Your task to perform on an android device: Open Google Chrome and open the bookmarks view Image 0: 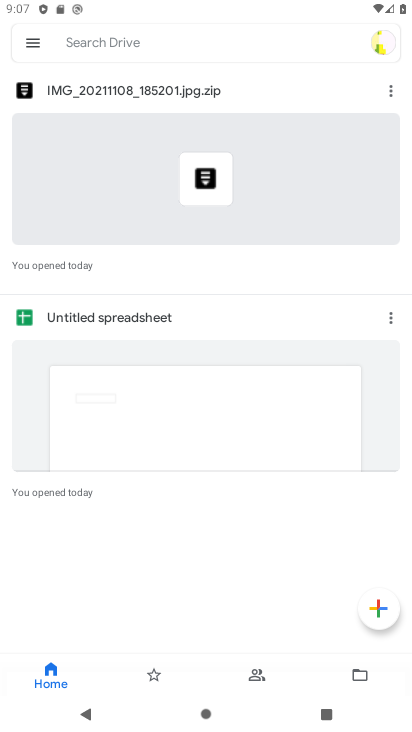
Step 0: press home button
Your task to perform on an android device: Open Google Chrome and open the bookmarks view Image 1: 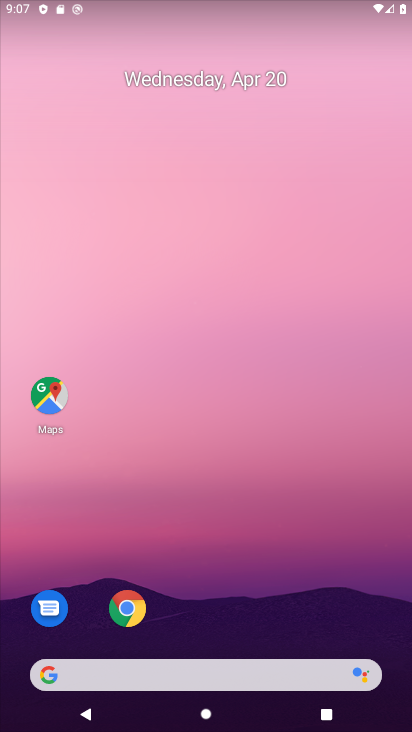
Step 1: drag from (224, 627) to (236, 19)
Your task to perform on an android device: Open Google Chrome and open the bookmarks view Image 2: 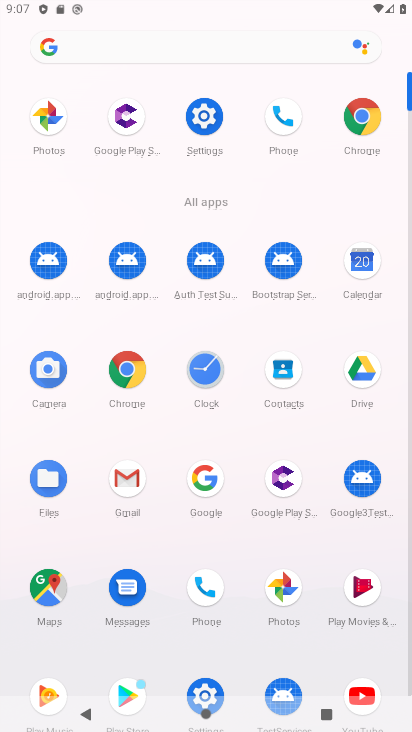
Step 2: click (135, 371)
Your task to perform on an android device: Open Google Chrome and open the bookmarks view Image 3: 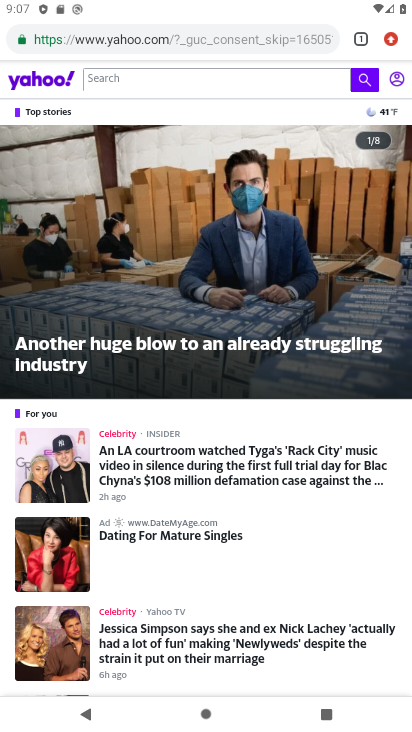
Step 3: click (385, 39)
Your task to perform on an android device: Open Google Chrome and open the bookmarks view Image 4: 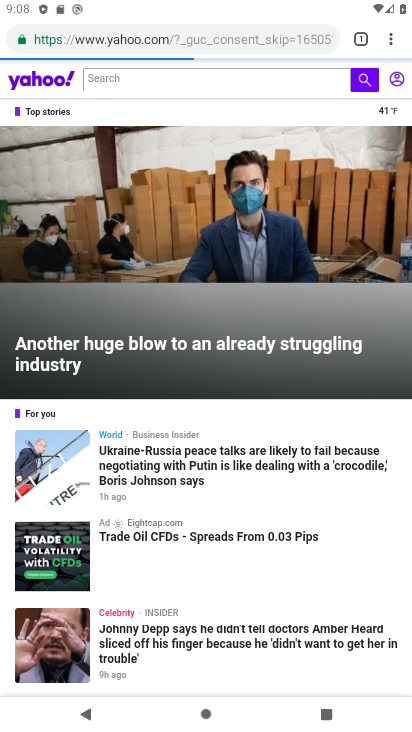
Step 4: click (389, 42)
Your task to perform on an android device: Open Google Chrome and open the bookmarks view Image 5: 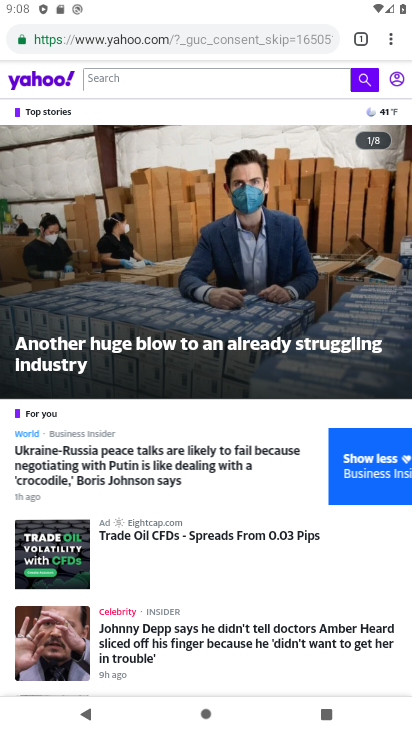
Step 5: click (395, 42)
Your task to perform on an android device: Open Google Chrome and open the bookmarks view Image 6: 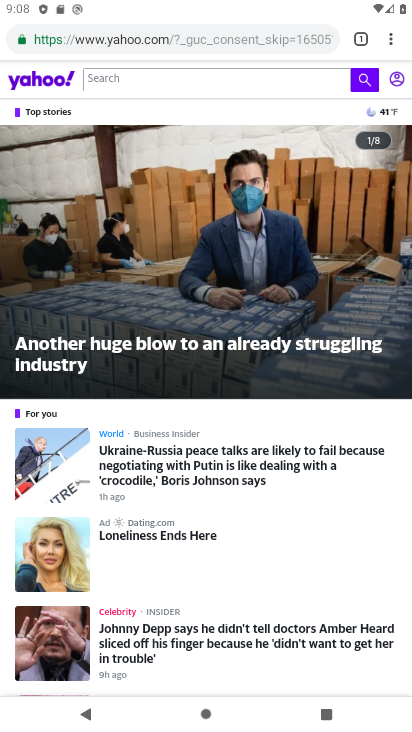
Step 6: click (391, 42)
Your task to perform on an android device: Open Google Chrome and open the bookmarks view Image 7: 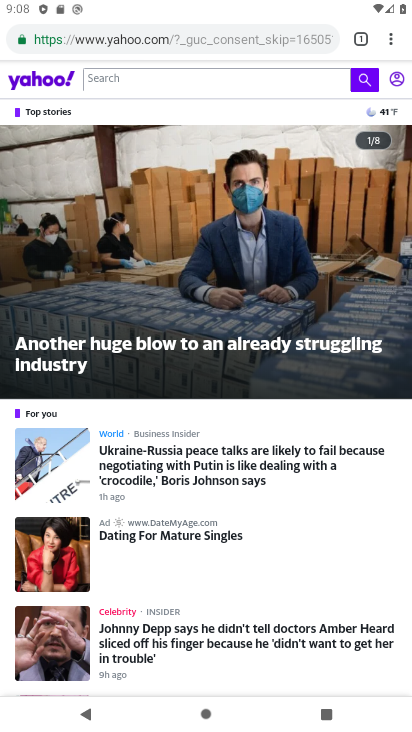
Step 7: click (388, 43)
Your task to perform on an android device: Open Google Chrome and open the bookmarks view Image 8: 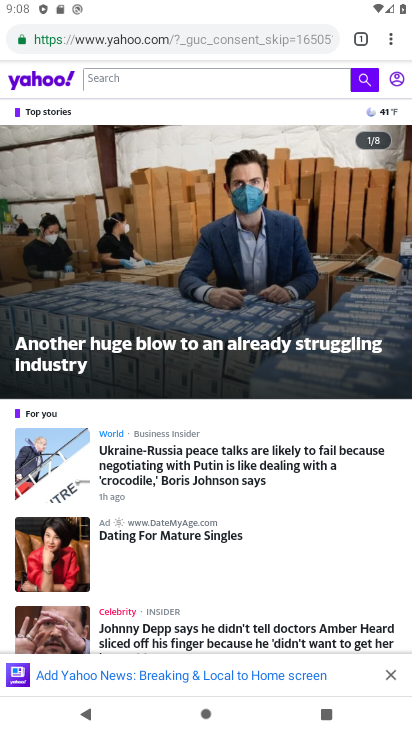
Step 8: click (383, 56)
Your task to perform on an android device: Open Google Chrome and open the bookmarks view Image 9: 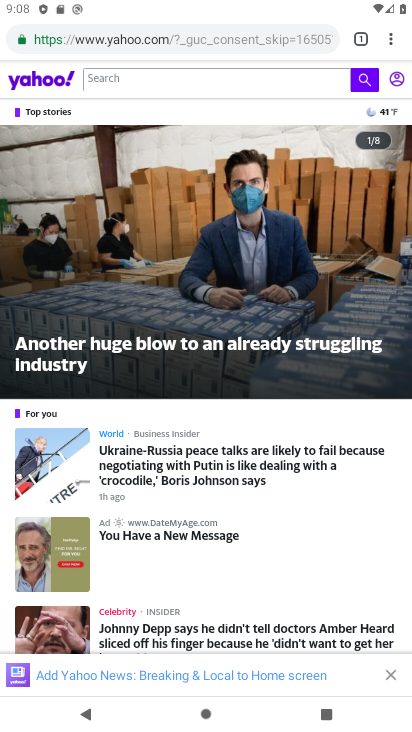
Step 9: click (386, 49)
Your task to perform on an android device: Open Google Chrome and open the bookmarks view Image 10: 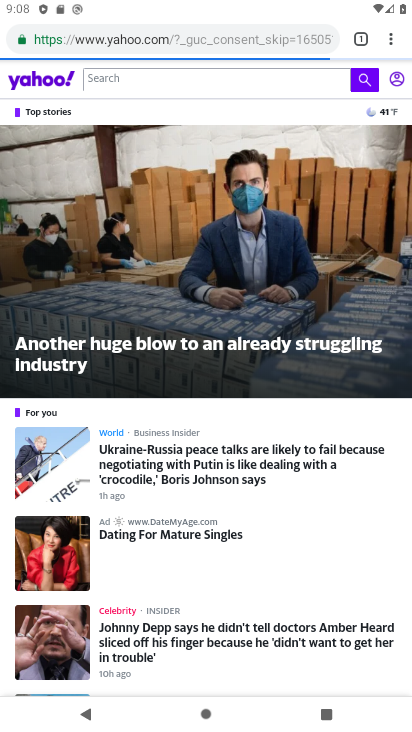
Step 10: click (392, 42)
Your task to perform on an android device: Open Google Chrome and open the bookmarks view Image 11: 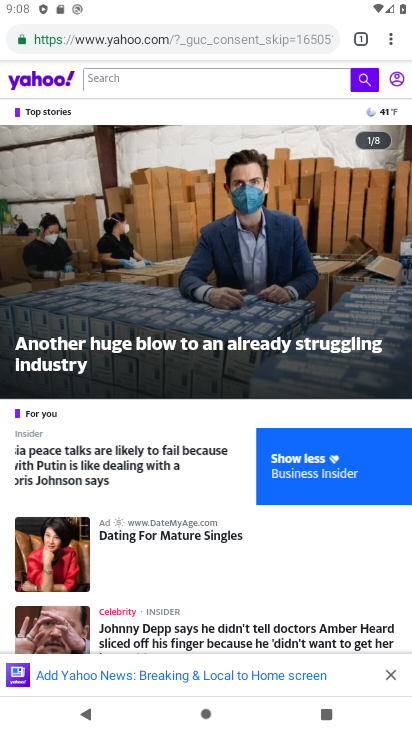
Step 11: click (389, 46)
Your task to perform on an android device: Open Google Chrome and open the bookmarks view Image 12: 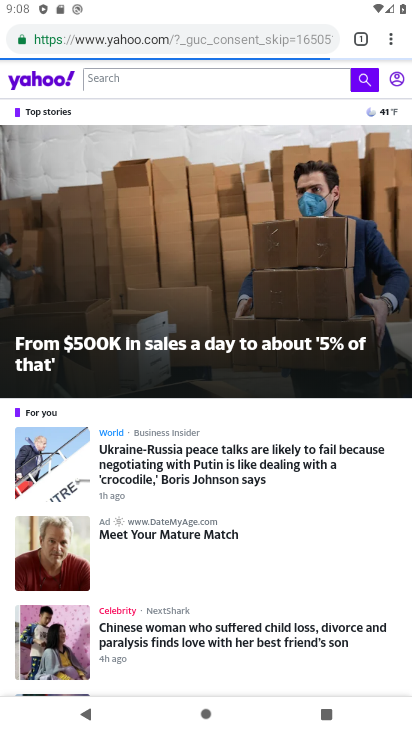
Step 12: click (394, 31)
Your task to perform on an android device: Open Google Chrome and open the bookmarks view Image 13: 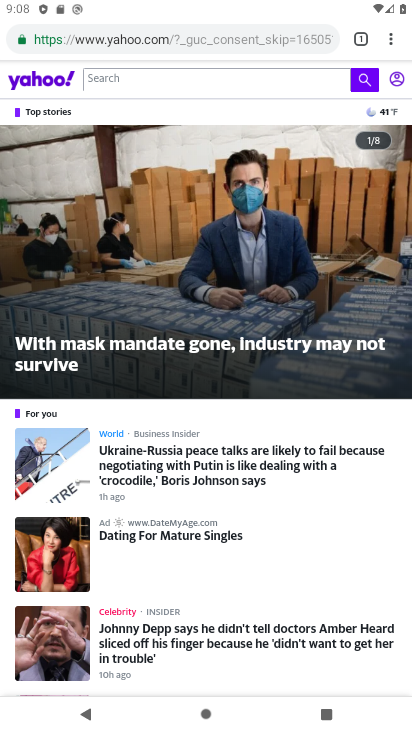
Step 13: click (386, 34)
Your task to perform on an android device: Open Google Chrome and open the bookmarks view Image 14: 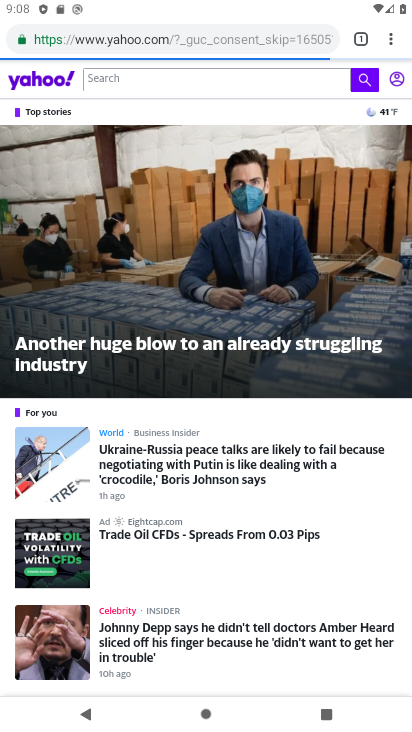
Step 14: click (402, 33)
Your task to perform on an android device: Open Google Chrome and open the bookmarks view Image 15: 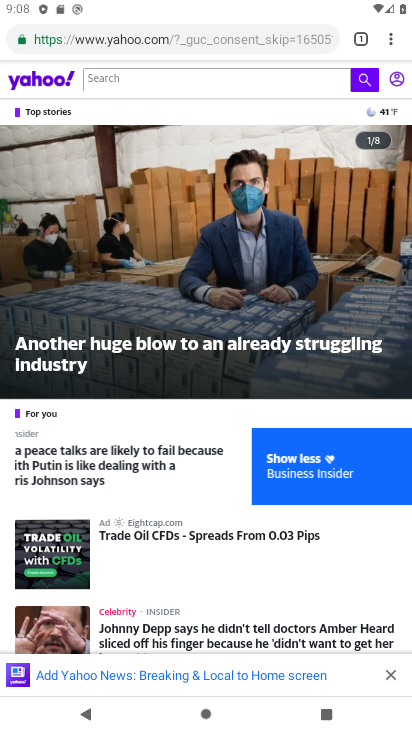
Step 15: click (400, 47)
Your task to perform on an android device: Open Google Chrome and open the bookmarks view Image 16: 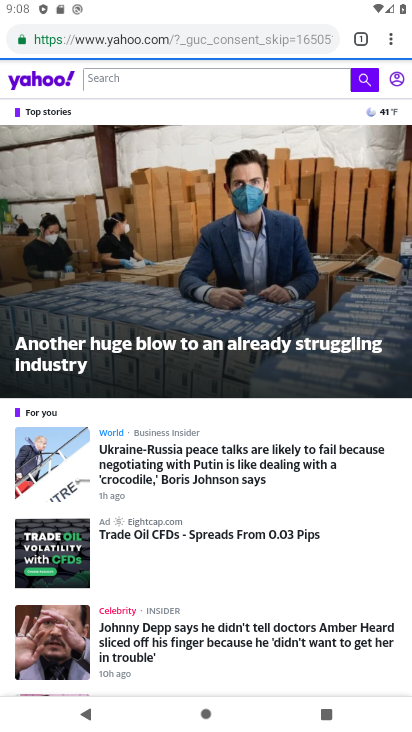
Step 16: click (391, 43)
Your task to perform on an android device: Open Google Chrome and open the bookmarks view Image 17: 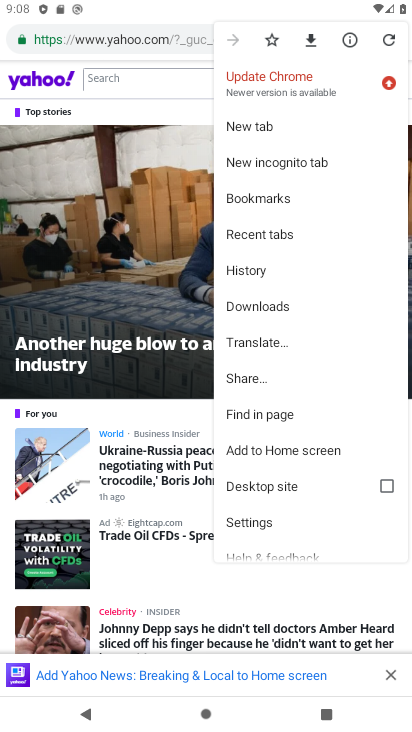
Step 17: click (261, 200)
Your task to perform on an android device: Open Google Chrome and open the bookmarks view Image 18: 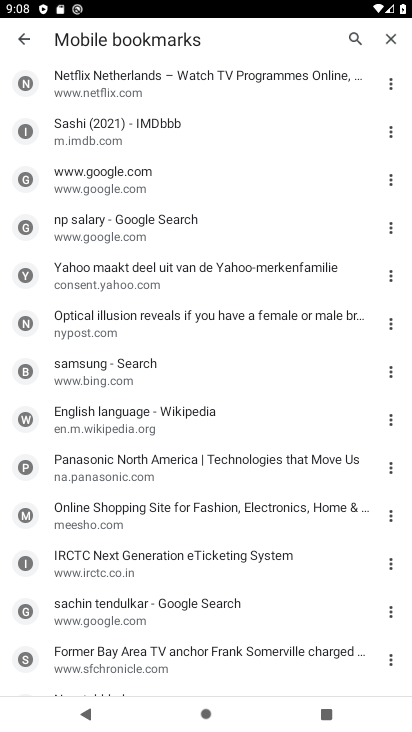
Step 18: task complete